Your task to perform on an android device: Go to eBay Image 0: 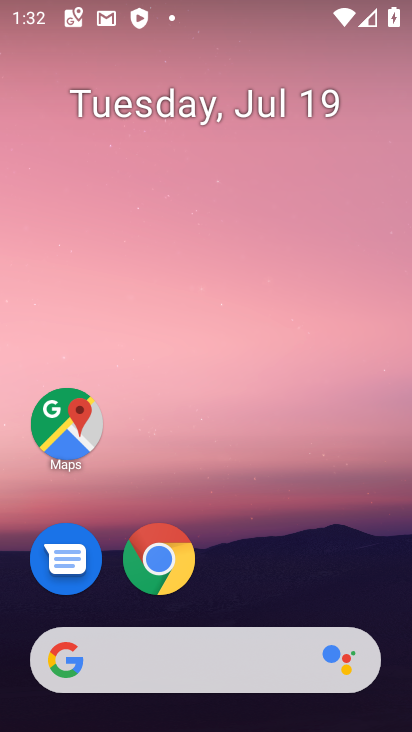
Step 0: drag from (202, 624) to (136, 166)
Your task to perform on an android device: Go to eBay Image 1: 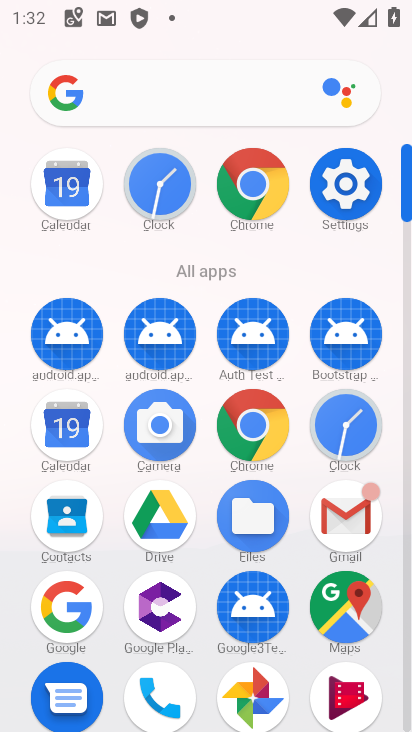
Step 1: click (255, 188)
Your task to perform on an android device: Go to eBay Image 2: 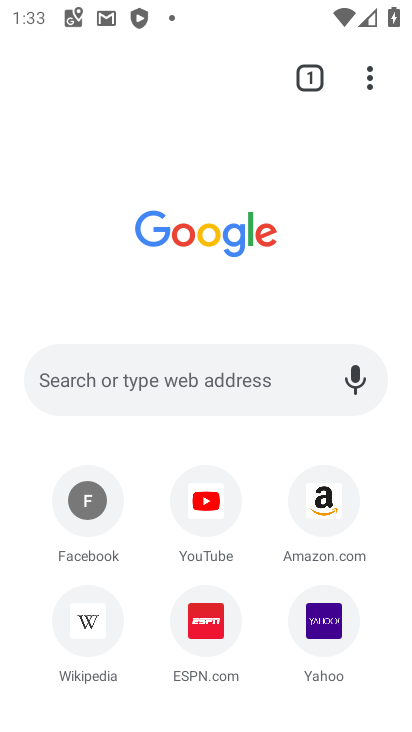
Step 2: drag from (237, 653) to (273, 291)
Your task to perform on an android device: Go to eBay Image 3: 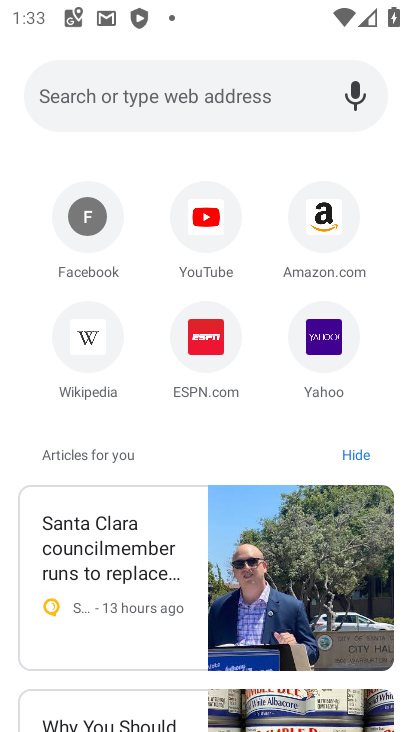
Step 3: click (117, 96)
Your task to perform on an android device: Go to eBay Image 4: 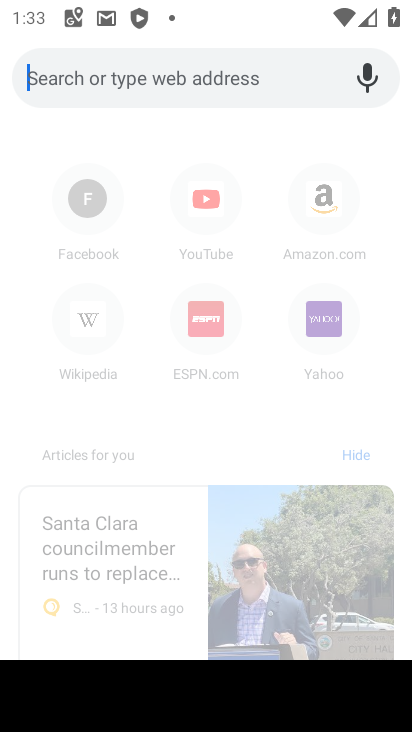
Step 4: type "ebay"
Your task to perform on an android device: Go to eBay Image 5: 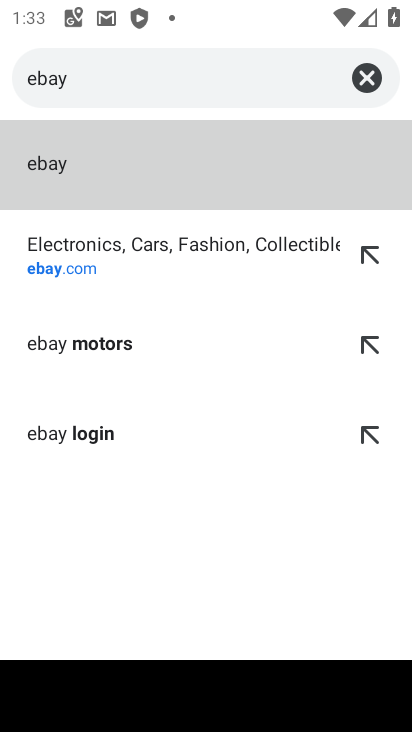
Step 5: click (52, 166)
Your task to perform on an android device: Go to eBay Image 6: 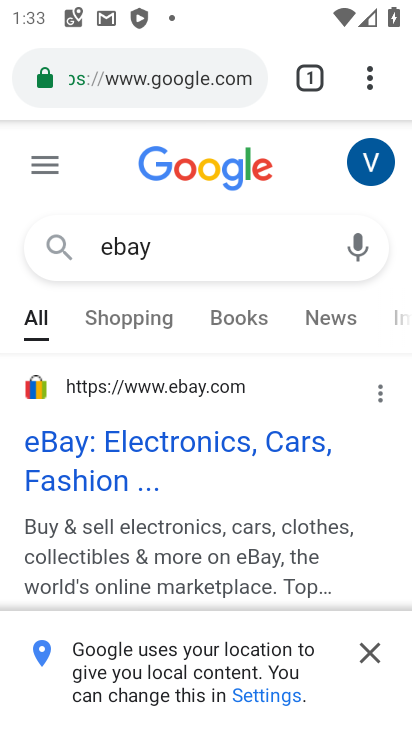
Step 6: click (248, 451)
Your task to perform on an android device: Go to eBay Image 7: 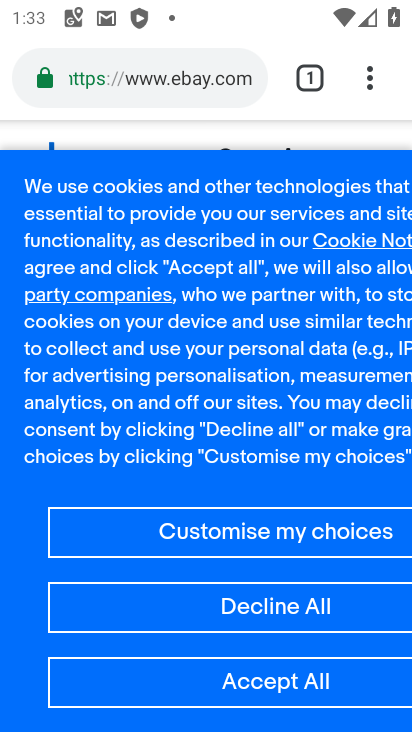
Step 7: task complete